Your task to perform on an android device: Go to battery settings Image 0: 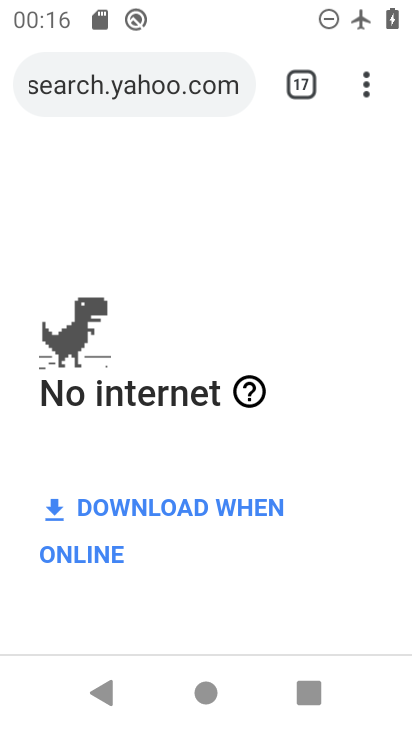
Step 0: press home button
Your task to perform on an android device: Go to battery settings Image 1: 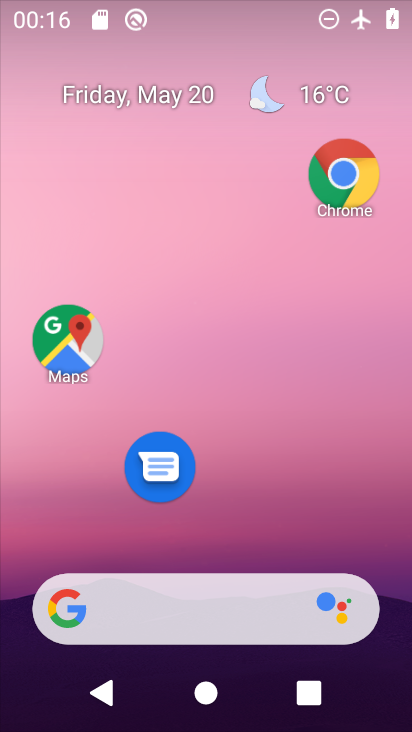
Step 1: drag from (218, 247) to (202, 156)
Your task to perform on an android device: Go to battery settings Image 2: 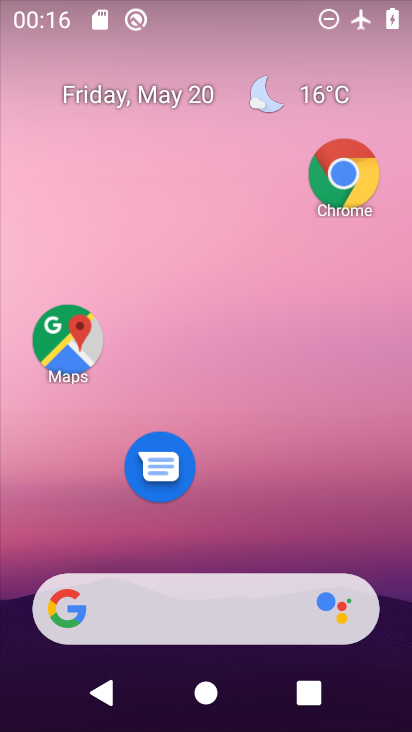
Step 2: drag from (175, 432) to (200, 196)
Your task to perform on an android device: Go to battery settings Image 3: 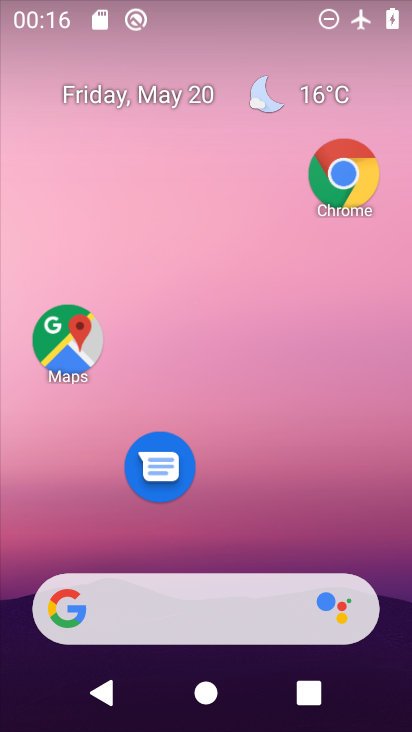
Step 3: drag from (198, 495) to (234, 245)
Your task to perform on an android device: Go to battery settings Image 4: 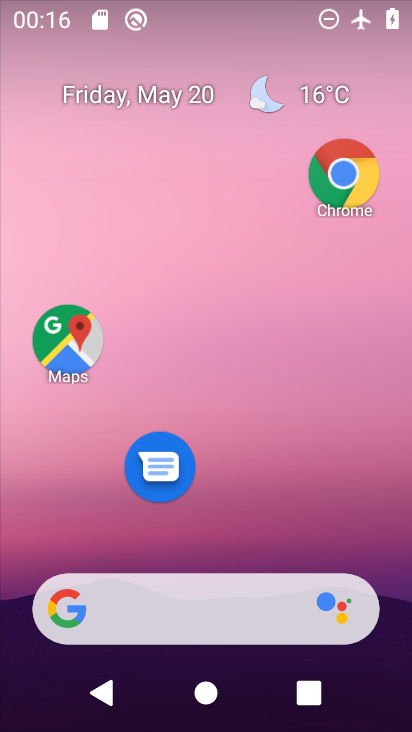
Step 4: drag from (209, 533) to (257, 220)
Your task to perform on an android device: Go to battery settings Image 5: 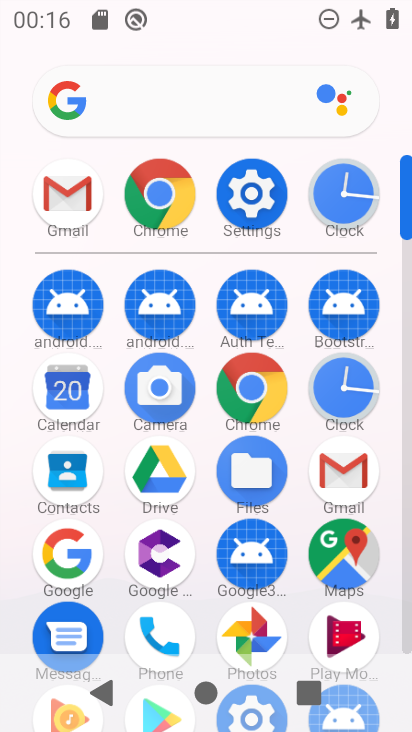
Step 5: click (252, 213)
Your task to perform on an android device: Go to battery settings Image 6: 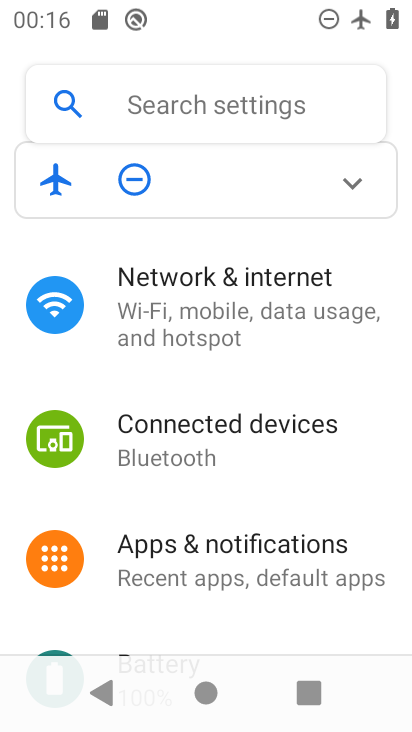
Step 6: drag from (244, 555) to (242, 246)
Your task to perform on an android device: Go to battery settings Image 7: 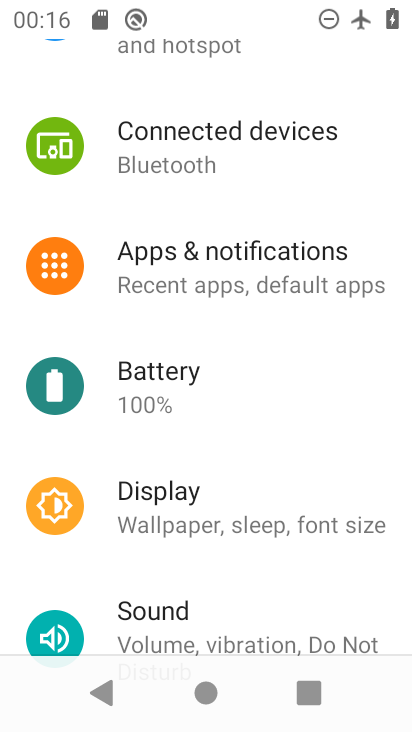
Step 7: click (203, 402)
Your task to perform on an android device: Go to battery settings Image 8: 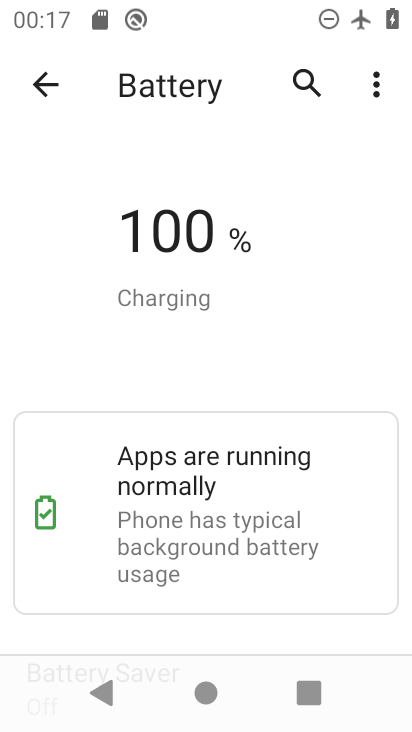
Step 8: task complete